Your task to perform on an android device: Go to Yahoo.com Image 0: 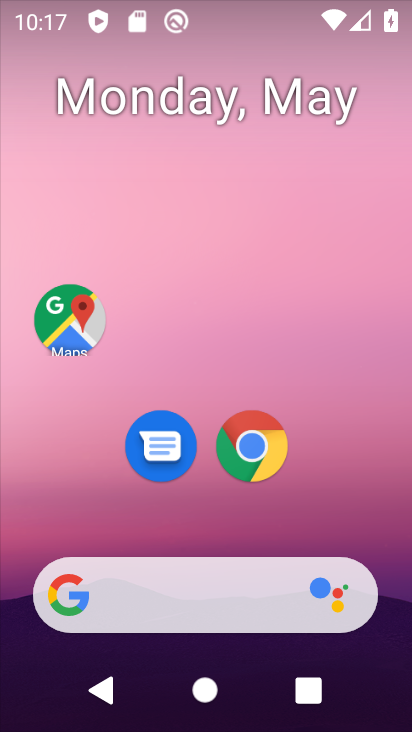
Step 0: click (268, 457)
Your task to perform on an android device: Go to Yahoo.com Image 1: 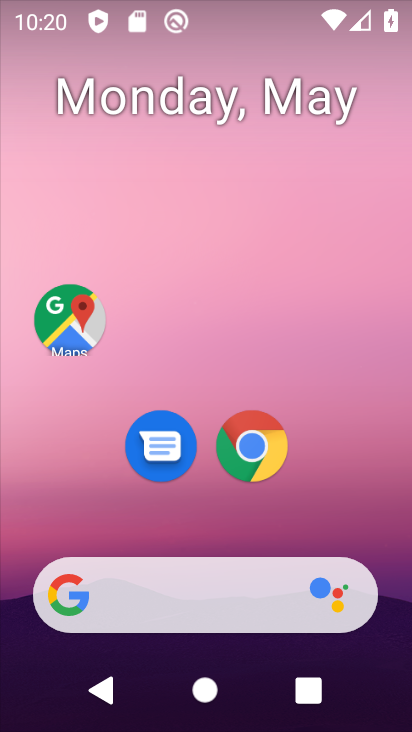
Step 1: click (249, 438)
Your task to perform on an android device: Go to Yahoo.com Image 2: 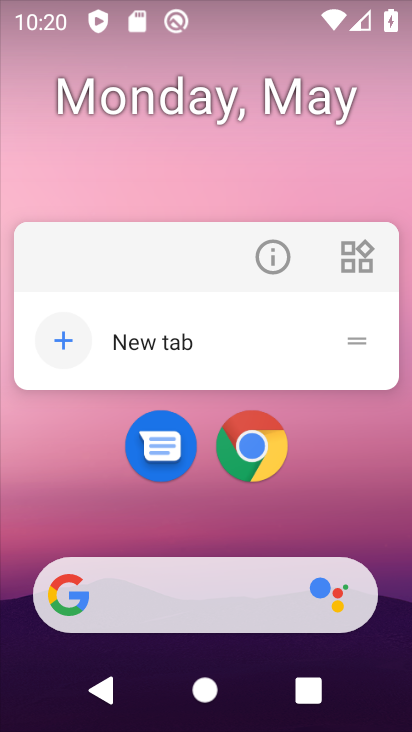
Step 2: click (232, 450)
Your task to perform on an android device: Go to Yahoo.com Image 3: 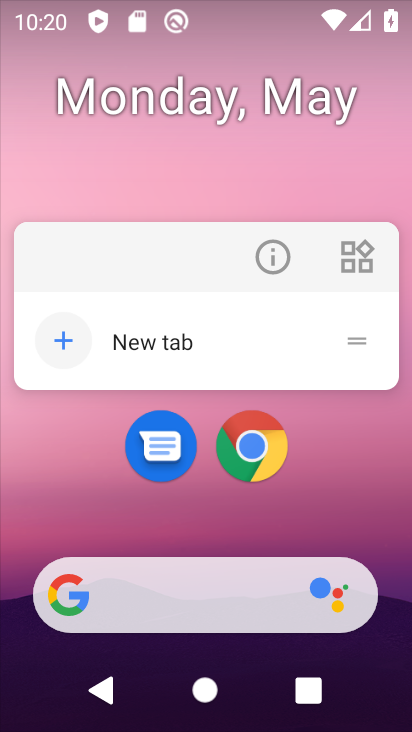
Step 3: click (234, 451)
Your task to perform on an android device: Go to Yahoo.com Image 4: 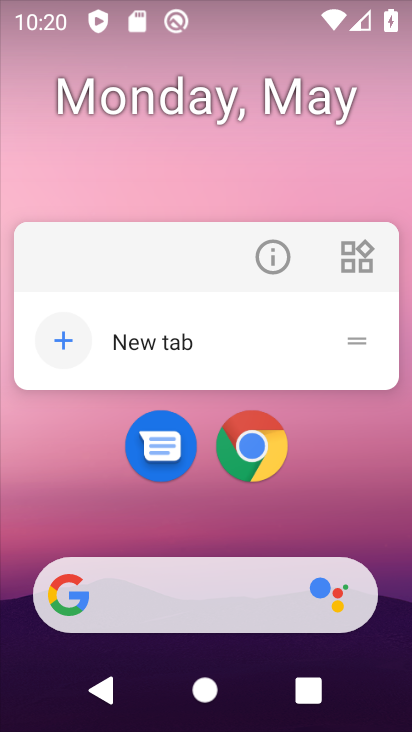
Step 4: click (234, 452)
Your task to perform on an android device: Go to Yahoo.com Image 5: 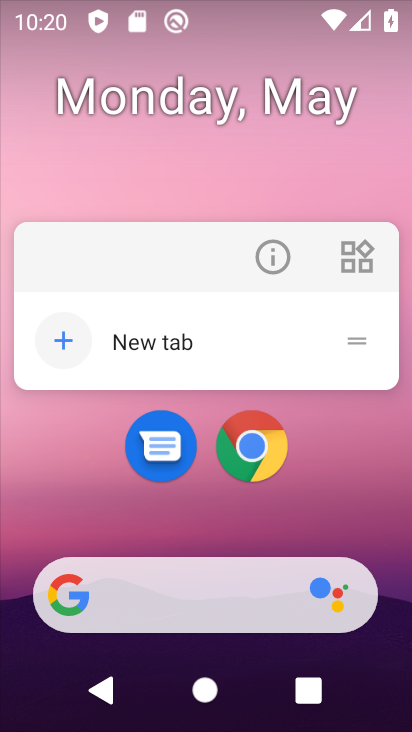
Step 5: click (235, 451)
Your task to perform on an android device: Go to Yahoo.com Image 6: 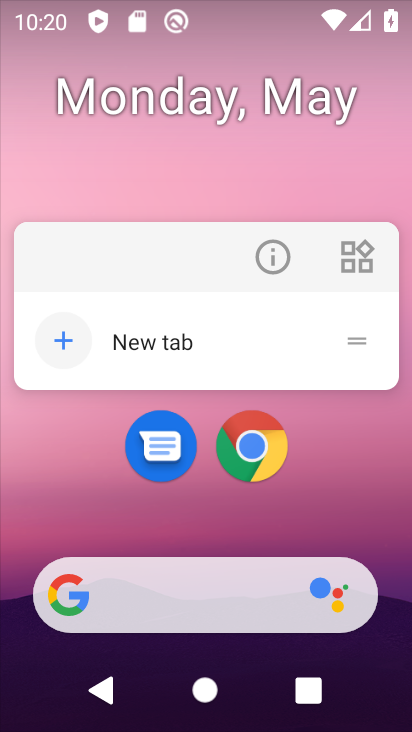
Step 6: click (377, 497)
Your task to perform on an android device: Go to Yahoo.com Image 7: 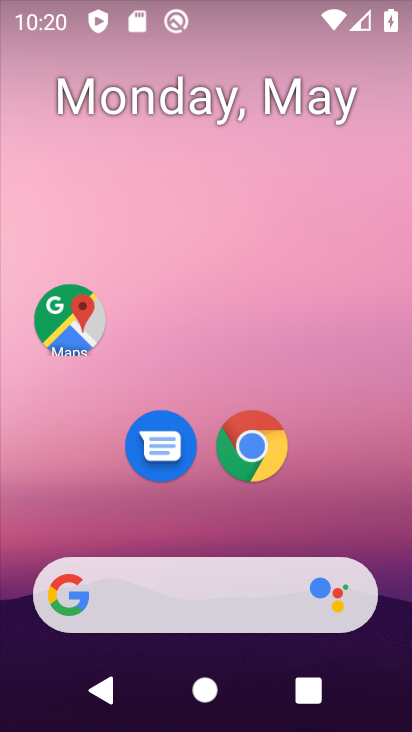
Step 7: click (333, 470)
Your task to perform on an android device: Go to Yahoo.com Image 8: 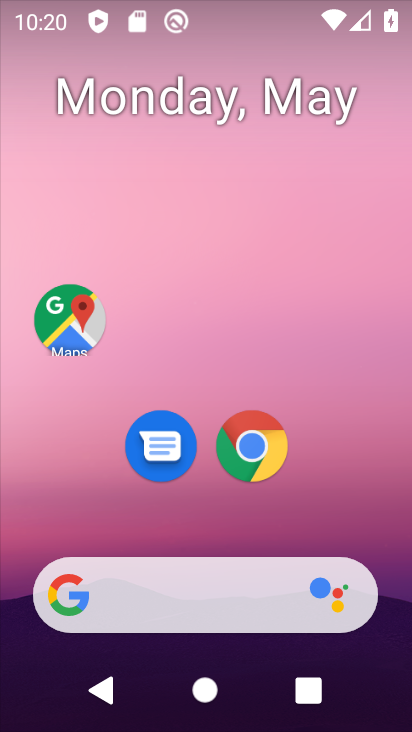
Step 8: drag from (346, 510) to (333, 1)
Your task to perform on an android device: Go to Yahoo.com Image 9: 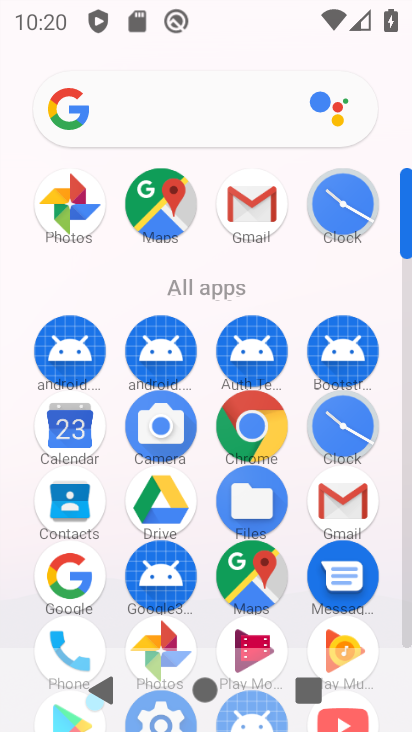
Step 9: click (265, 412)
Your task to perform on an android device: Go to Yahoo.com Image 10: 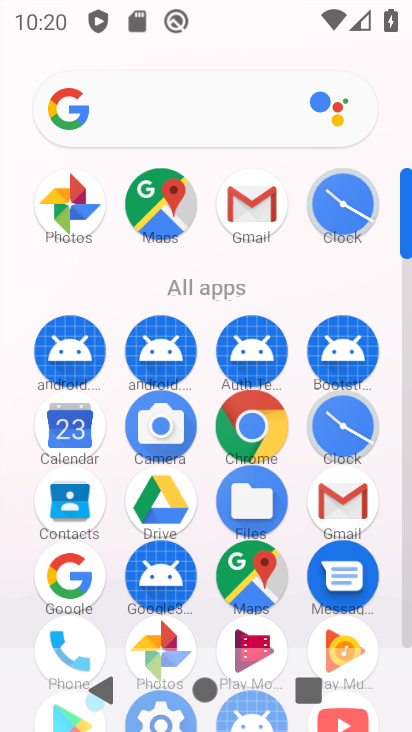
Step 10: click (264, 410)
Your task to perform on an android device: Go to Yahoo.com Image 11: 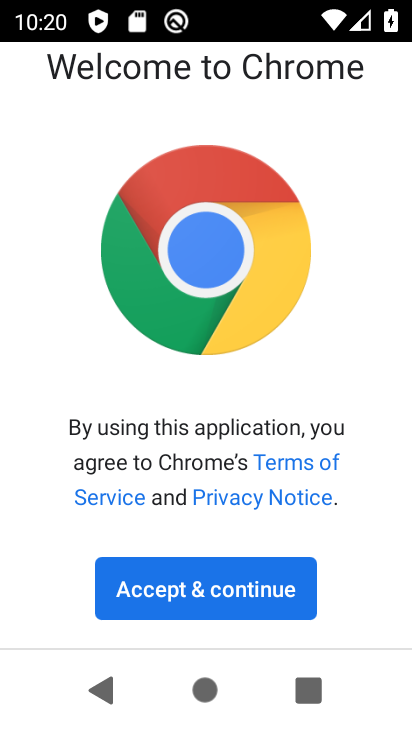
Step 11: click (234, 603)
Your task to perform on an android device: Go to Yahoo.com Image 12: 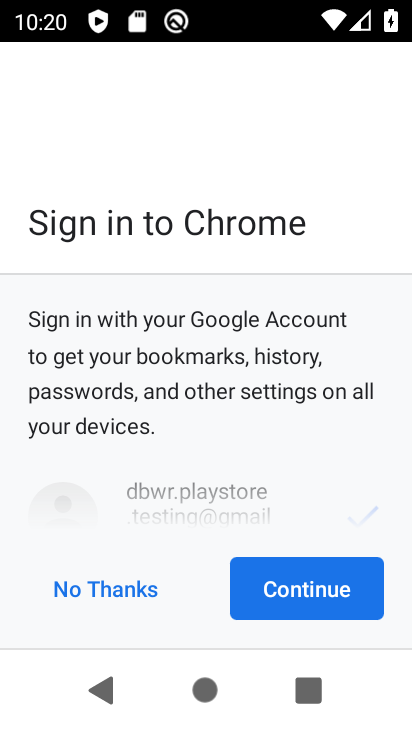
Step 12: click (151, 588)
Your task to perform on an android device: Go to Yahoo.com Image 13: 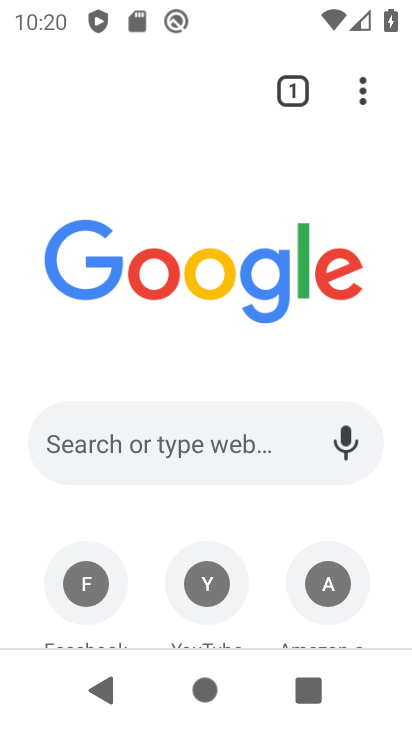
Step 13: click (218, 93)
Your task to perform on an android device: Go to Yahoo.com Image 14: 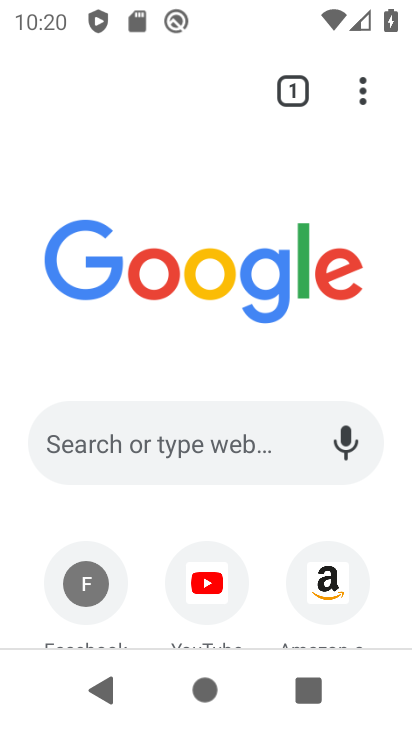
Step 14: click (202, 433)
Your task to perform on an android device: Go to Yahoo.com Image 15: 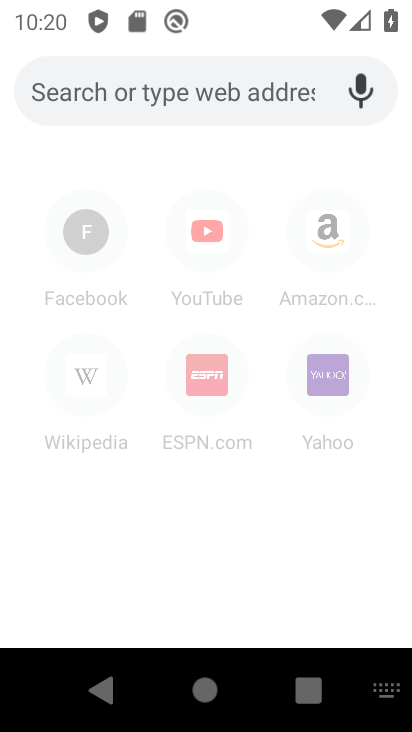
Step 15: click (343, 387)
Your task to perform on an android device: Go to Yahoo.com Image 16: 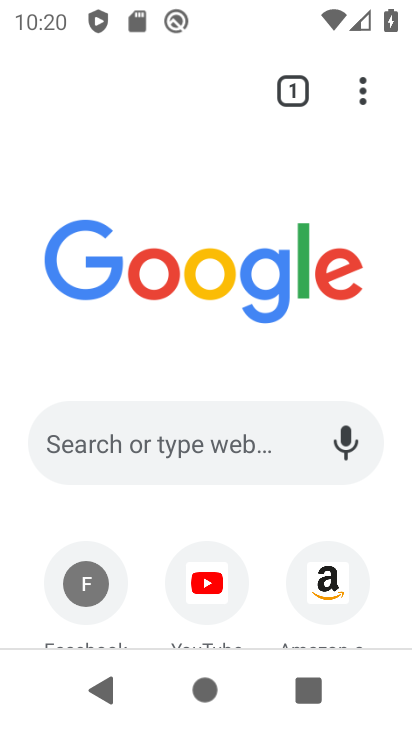
Step 16: drag from (340, 461) to (358, 92)
Your task to perform on an android device: Go to Yahoo.com Image 17: 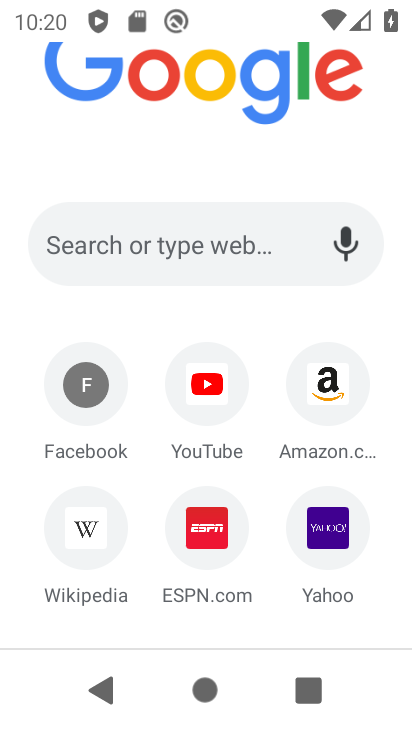
Step 17: click (305, 542)
Your task to perform on an android device: Go to Yahoo.com Image 18: 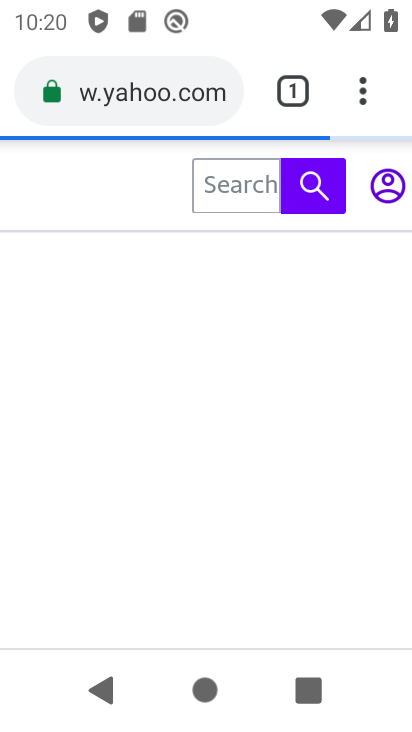
Step 18: task complete